Your task to perform on an android device: make emails show in primary in the gmail app Image 0: 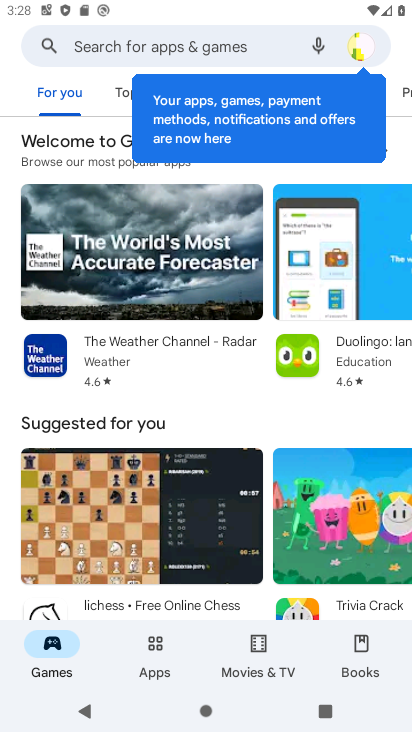
Step 0: press home button
Your task to perform on an android device: make emails show in primary in the gmail app Image 1: 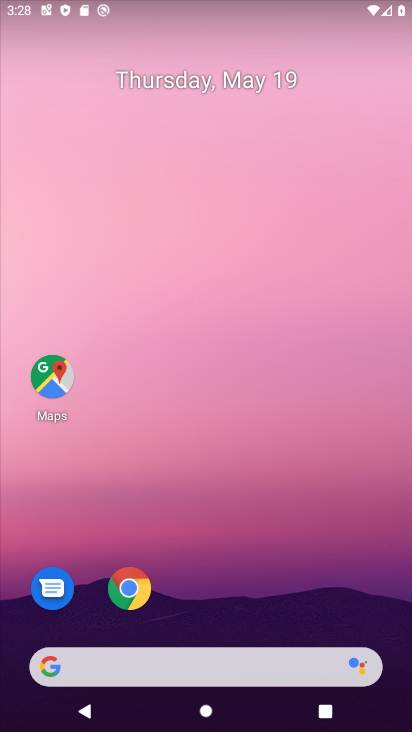
Step 1: drag from (171, 607) to (237, 101)
Your task to perform on an android device: make emails show in primary in the gmail app Image 2: 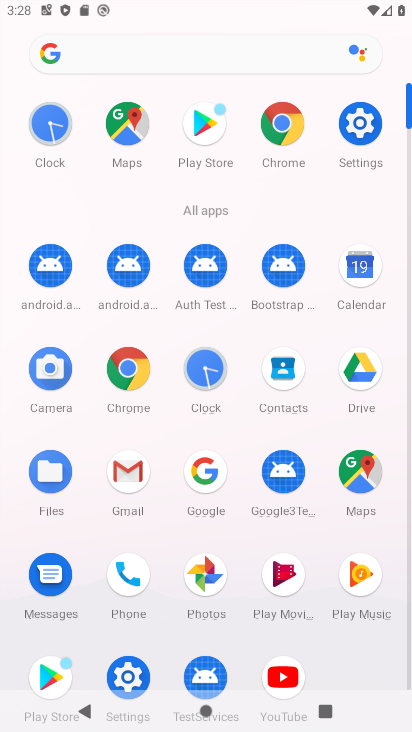
Step 2: click (121, 458)
Your task to perform on an android device: make emails show in primary in the gmail app Image 3: 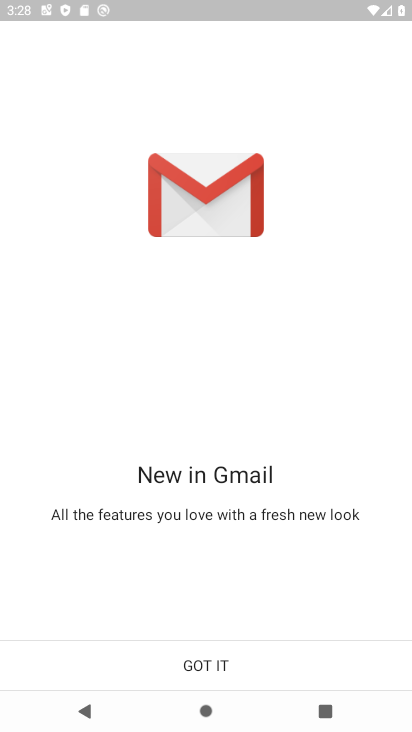
Step 3: click (206, 653)
Your task to perform on an android device: make emails show in primary in the gmail app Image 4: 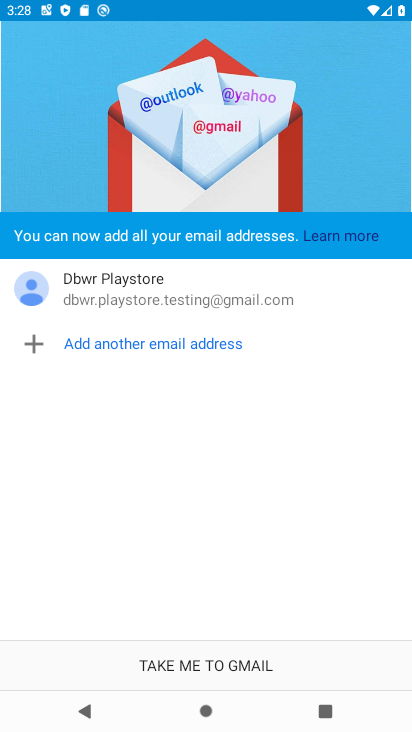
Step 4: click (206, 653)
Your task to perform on an android device: make emails show in primary in the gmail app Image 5: 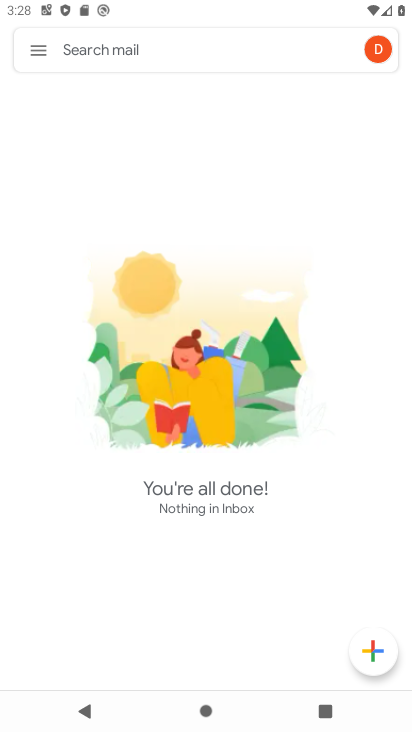
Step 5: click (36, 49)
Your task to perform on an android device: make emails show in primary in the gmail app Image 6: 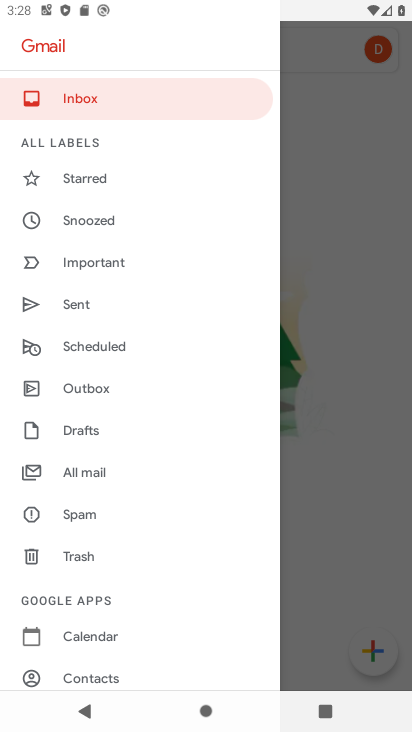
Step 6: task complete